Your task to perform on an android device: make emails show in primary in the gmail app Image 0: 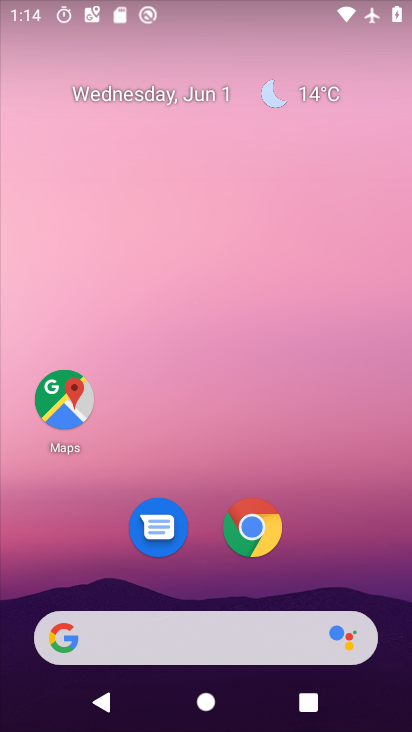
Step 0: drag from (336, 441) to (303, 12)
Your task to perform on an android device: make emails show in primary in the gmail app Image 1: 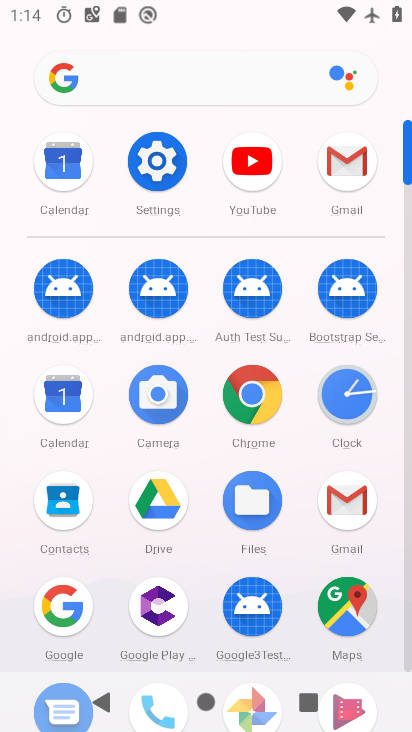
Step 1: click (330, 163)
Your task to perform on an android device: make emails show in primary in the gmail app Image 2: 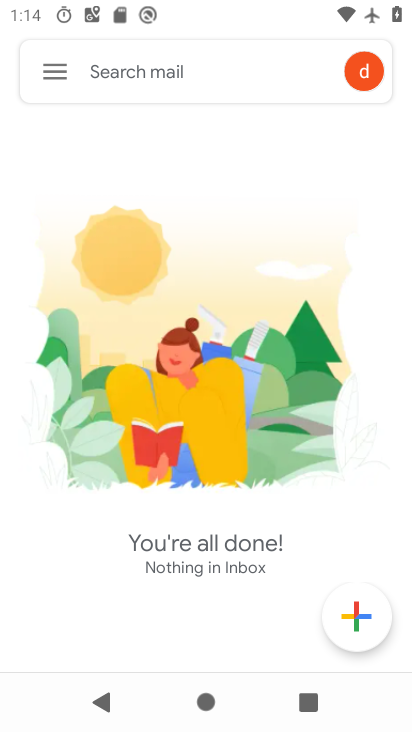
Step 2: click (54, 62)
Your task to perform on an android device: make emails show in primary in the gmail app Image 3: 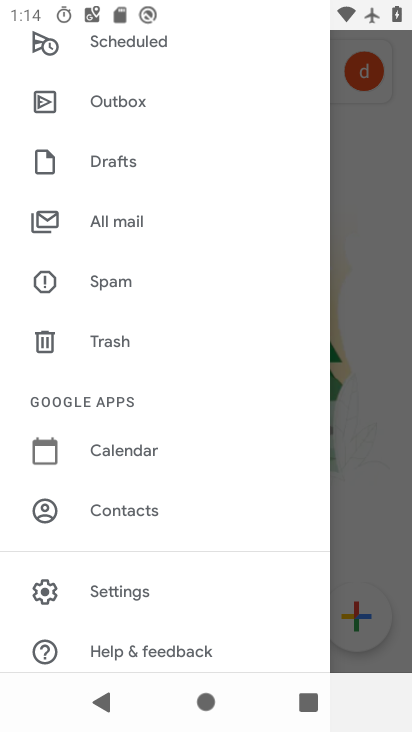
Step 3: click (142, 594)
Your task to perform on an android device: make emails show in primary in the gmail app Image 4: 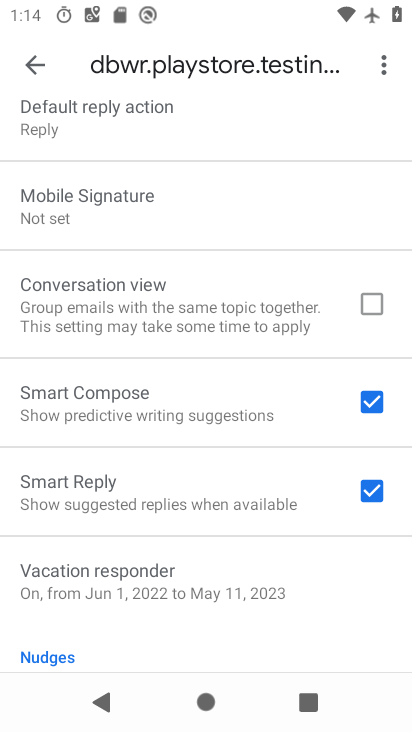
Step 4: task complete